Your task to perform on an android device: What's the latest technology news? Image 0: 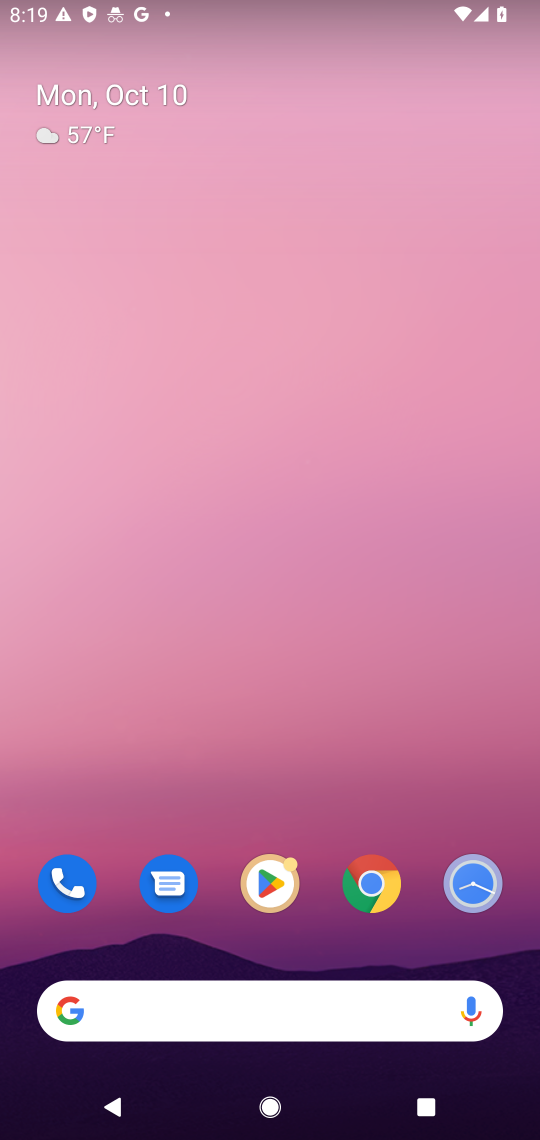
Step 0: drag from (126, 961) to (266, 201)
Your task to perform on an android device: What's the latest technology news? Image 1: 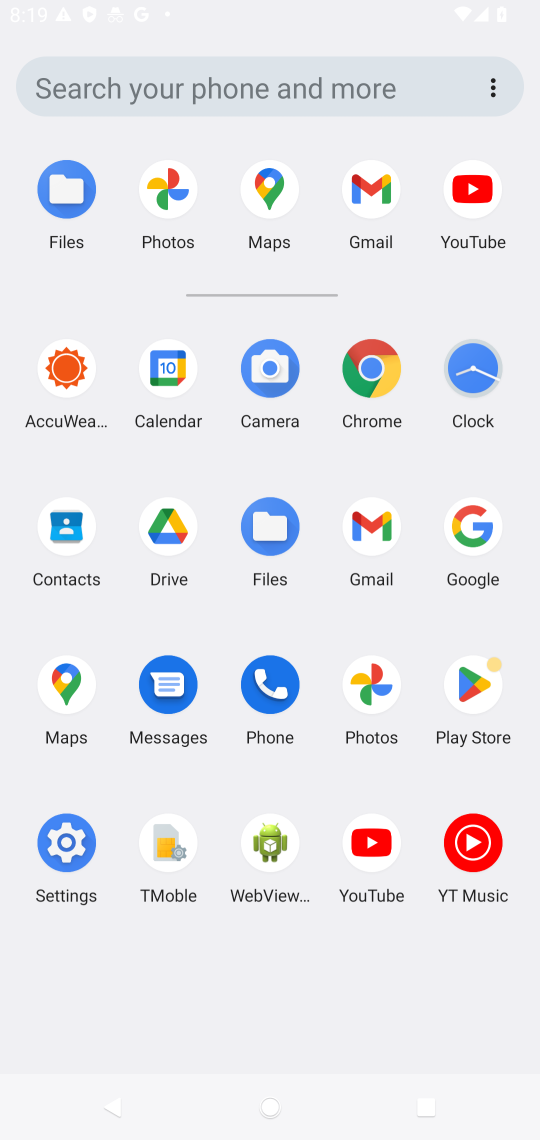
Step 1: click (266, 201)
Your task to perform on an android device: What's the latest technology news? Image 2: 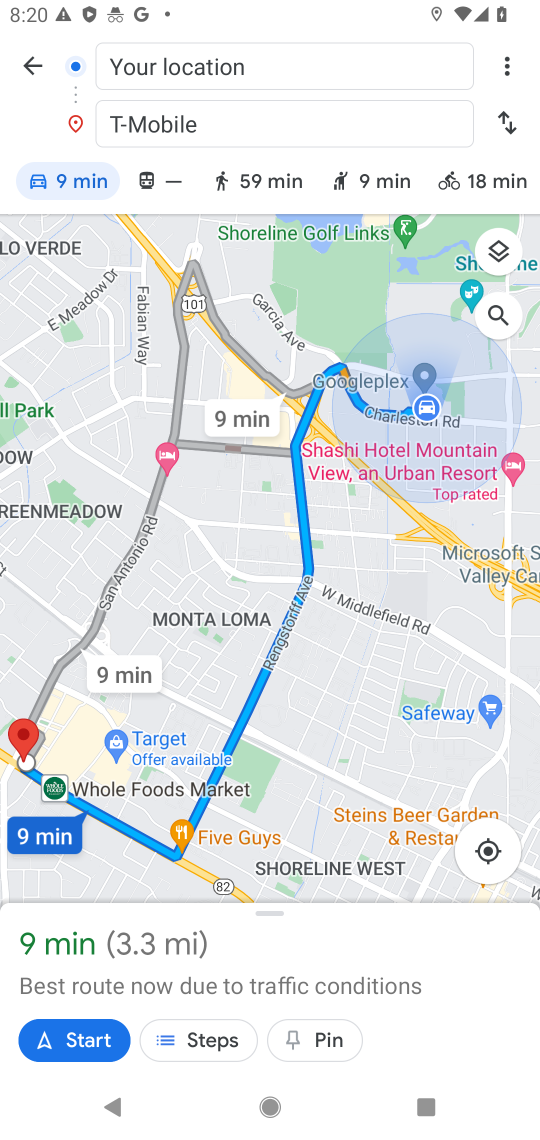
Step 2: press home button
Your task to perform on an android device: What's the latest technology news? Image 3: 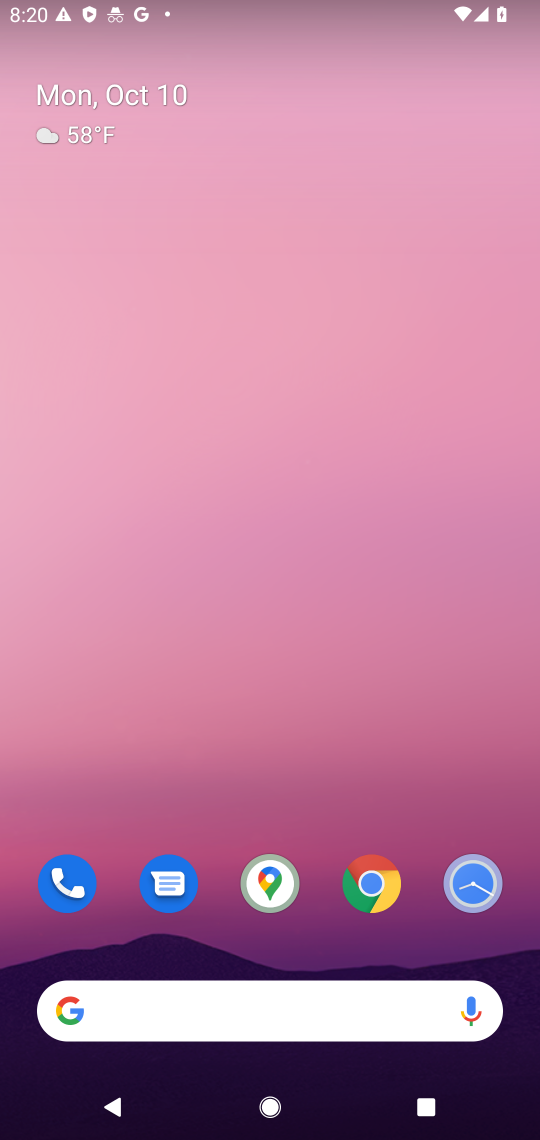
Step 3: drag from (344, 1045) to (393, 407)
Your task to perform on an android device: What's the latest technology news? Image 4: 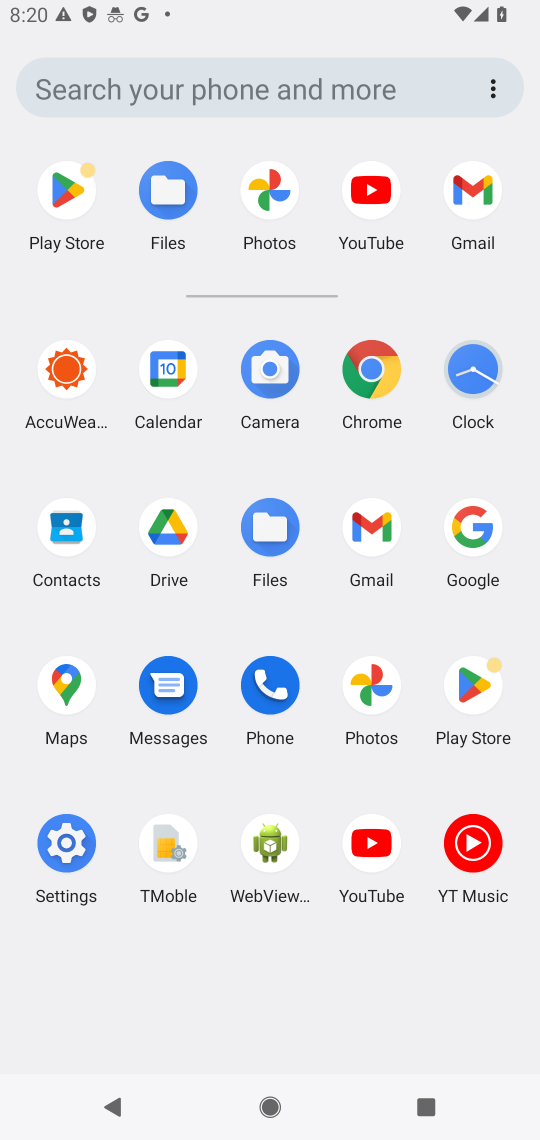
Step 4: click (477, 553)
Your task to perform on an android device: What's the latest technology news? Image 5: 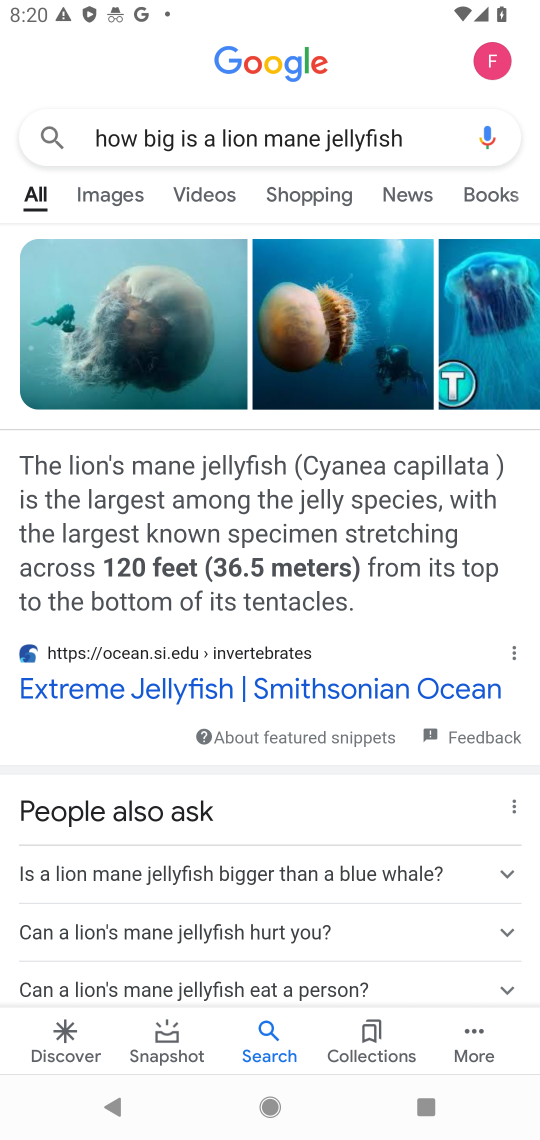
Step 5: click (434, 138)
Your task to perform on an android device: What's the latest technology news? Image 6: 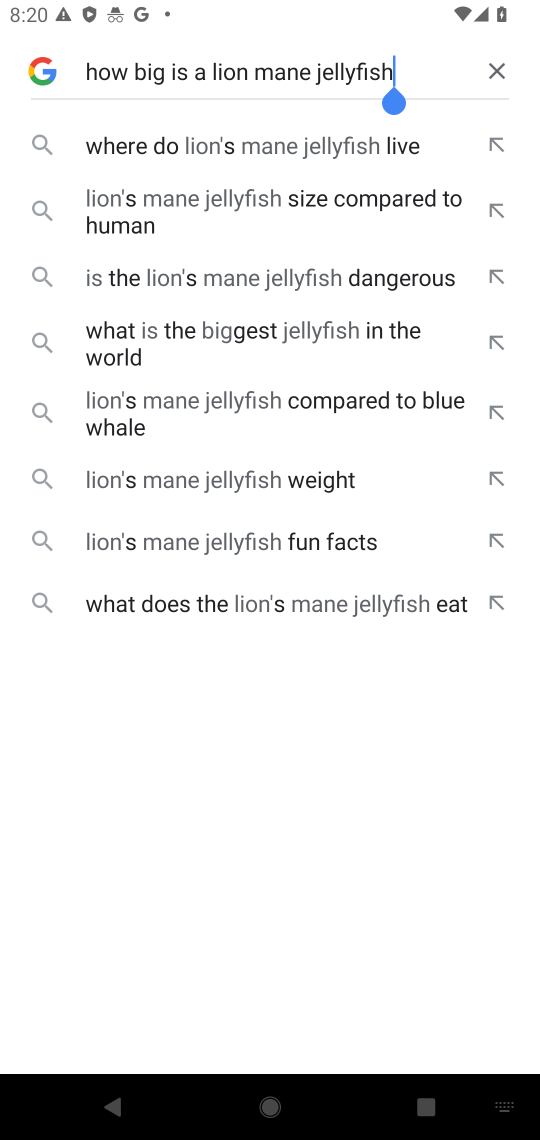
Step 6: click (506, 72)
Your task to perform on an android device: What's the latest technology news? Image 7: 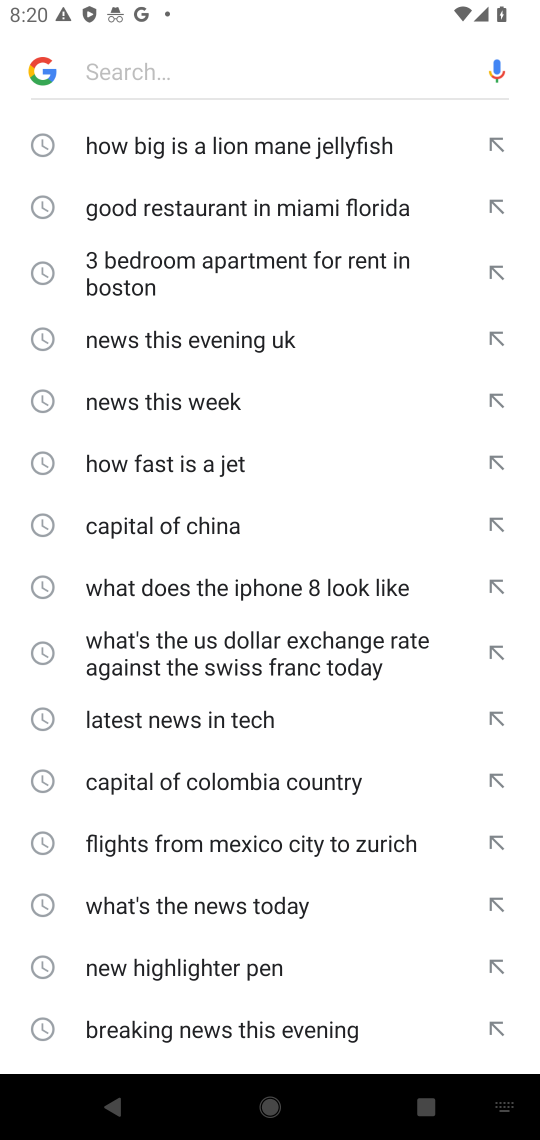
Step 7: click (414, 77)
Your task to perform on an android device: What's the latest technology news? Image 8: 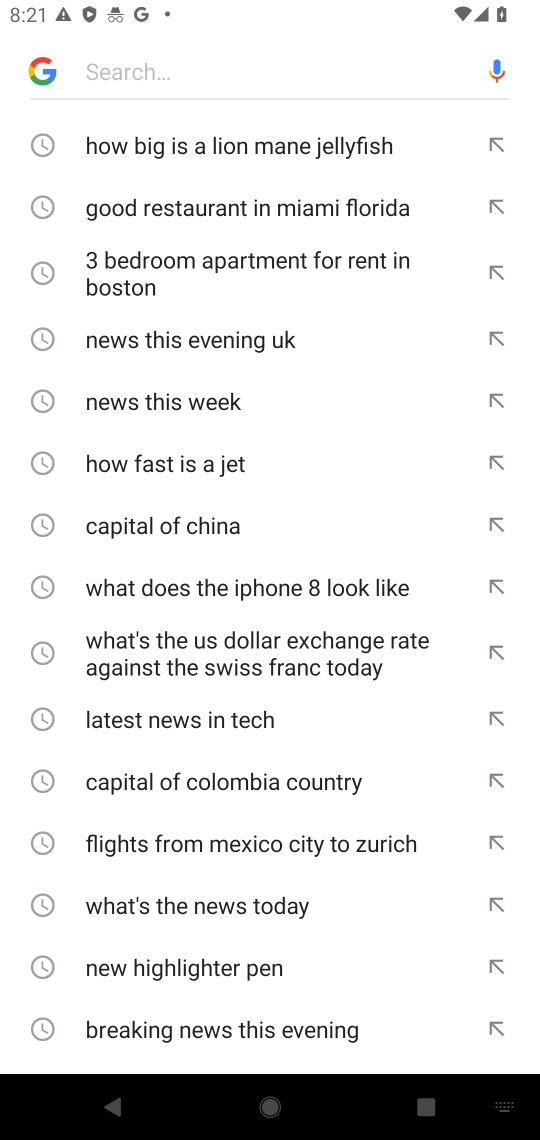
Step 8: type "latest technology news"
Your task to perform on an android device: What's the latest technology news? Image 9: 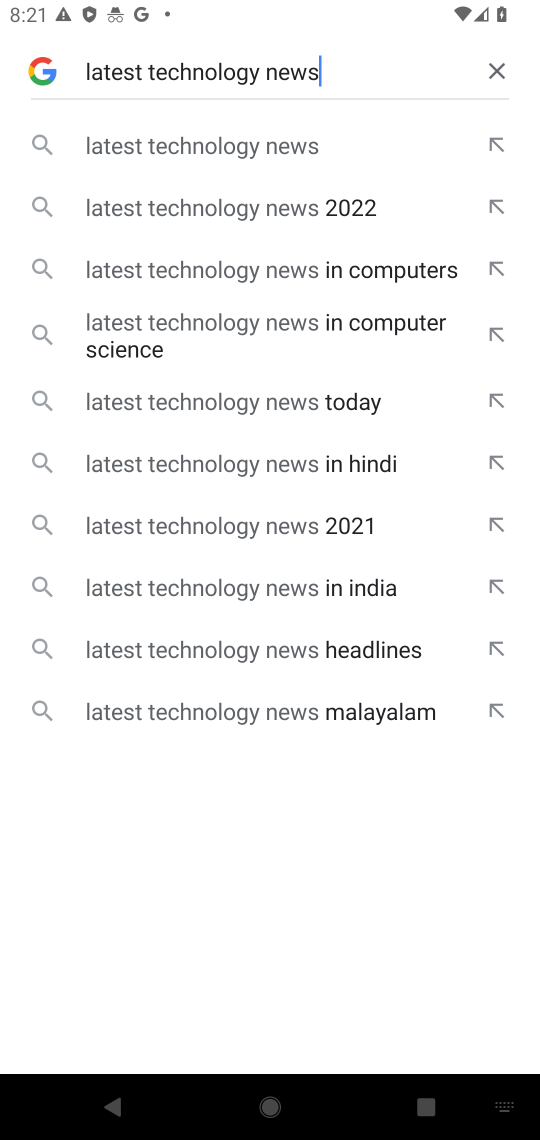
Step 9: click (244, 151)
Your task to perform on an android device: What's the latest technology news? Image 10: 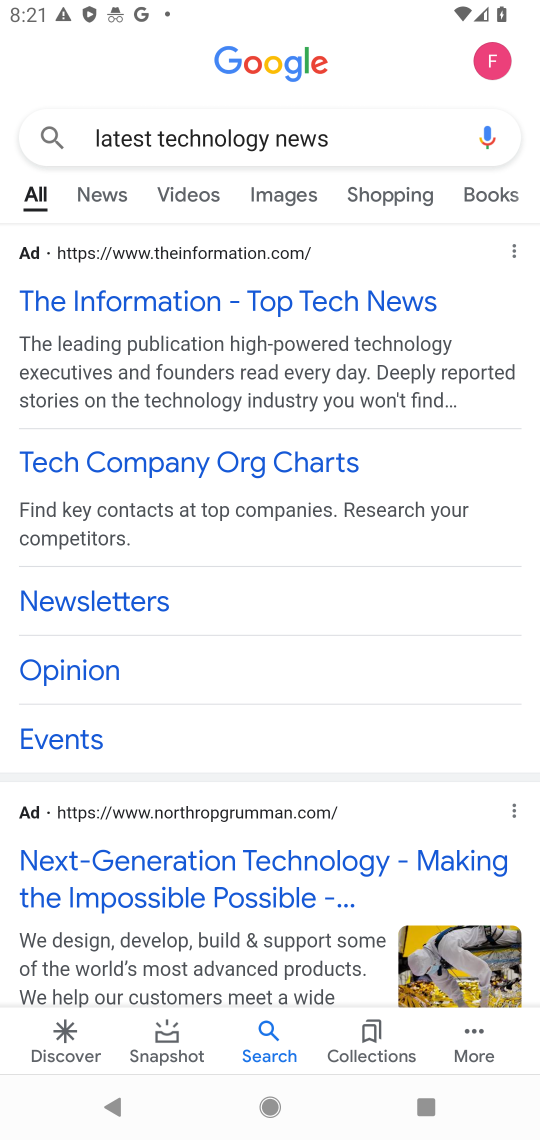
Step 10: click (110, 195)
Your task to perform on an android device: What's the latest technology news? Image 11: 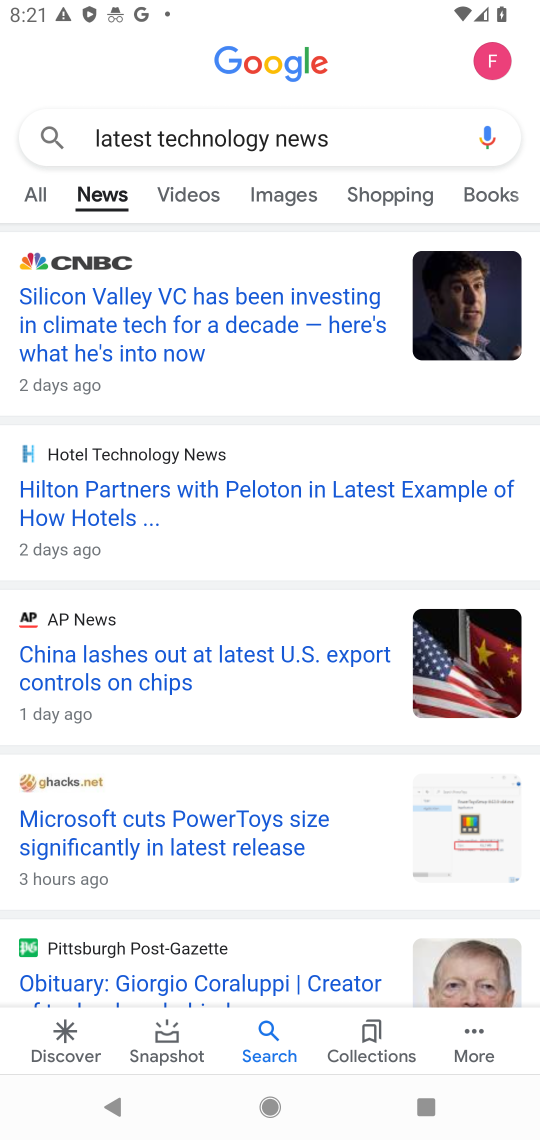
Step 11: task complete